Your task to perform on an android device: turn on sleep mode Image 0: 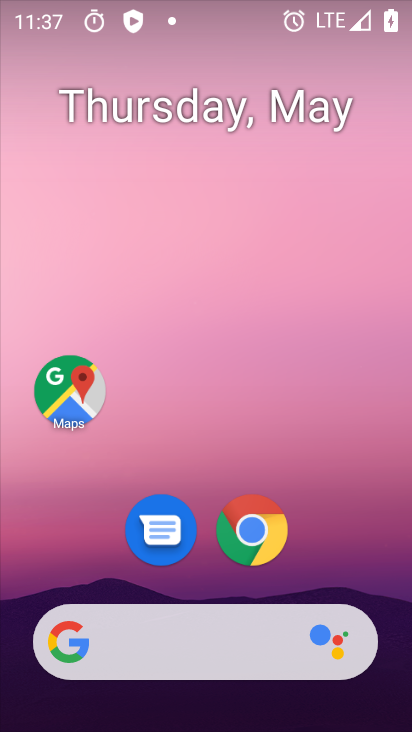
Step 0: drag from (355, 551) to (394, 97)
Your task to perform on an android device: turn on sleep mode Image 1: 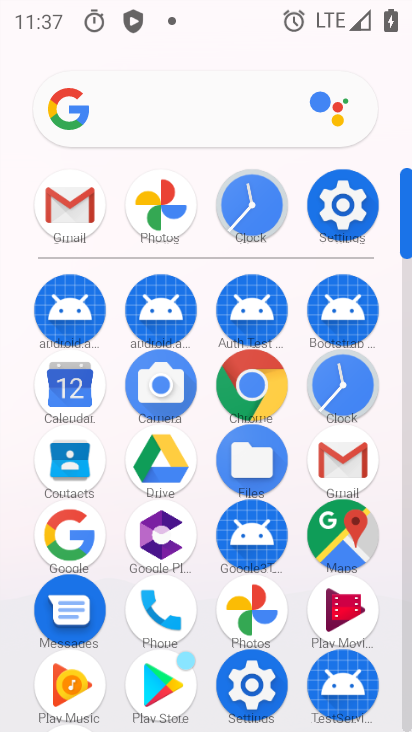
Step 1: click (330, 211)
Your task to perform on an android device: turn on sleep mode Image 2: 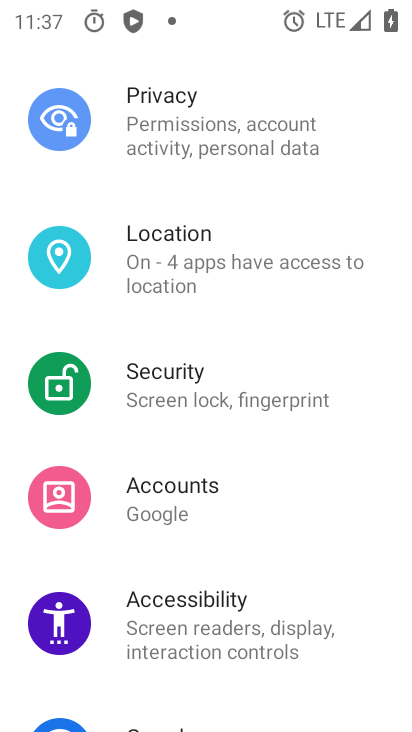
Step 2: drag from (326, 215) to (340, 326)
Your task to perform on an android device: turn on sleep mode Image 3: 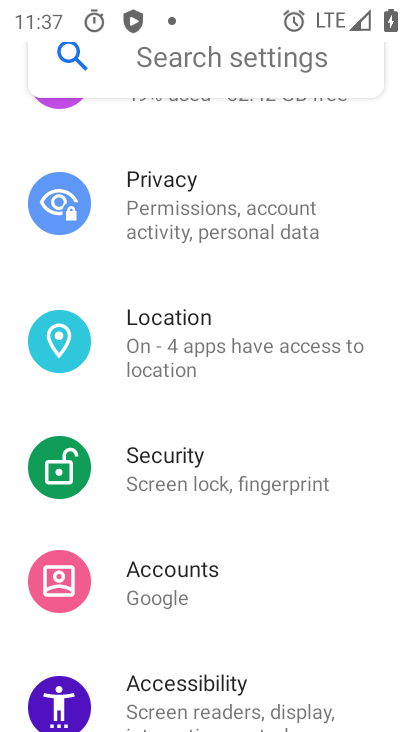
Step 3: drag from (330, 282) to (331, 347)
Your task to perform on an android device: turn on sleep mode Image 4: 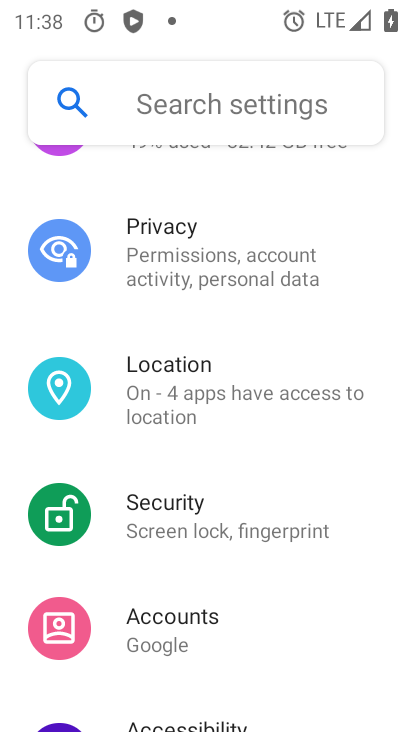
Step 4: drag from (307, 283) to (232, 468)
Your task to perform on an android device: turn on sleep mode Image 5: 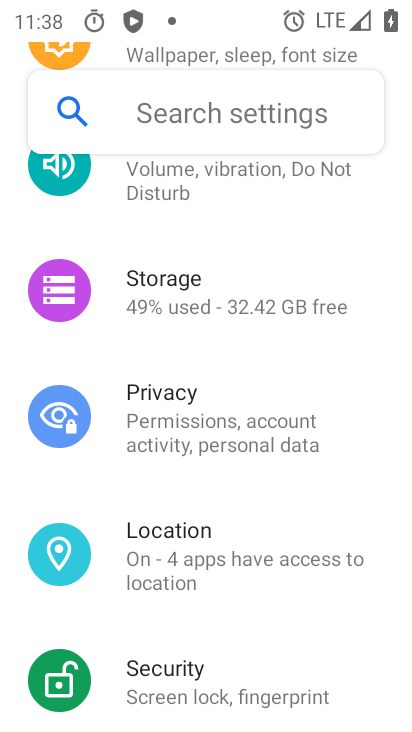
Step 5: drag from (220, 371) to (186, 486)
Your task to perform on an android device: turn on sleep mode Image 6: 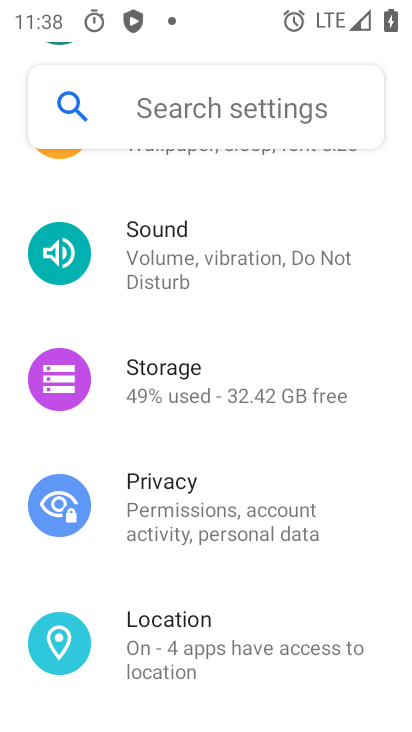
Step 6: drag from (196, 229) to (162, 545)
Your task to perform on an android device: turn on sleep mode Image 7: 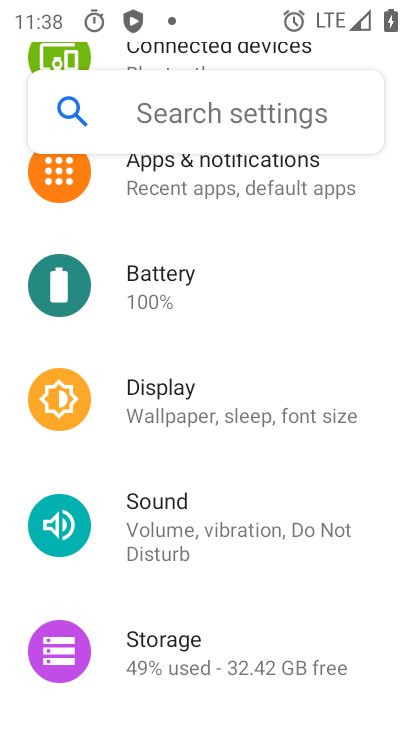
Step 7: drag from (177, 366) to (154, 457)
Your task to perform on an android device: turn on sleep mode Image 8: 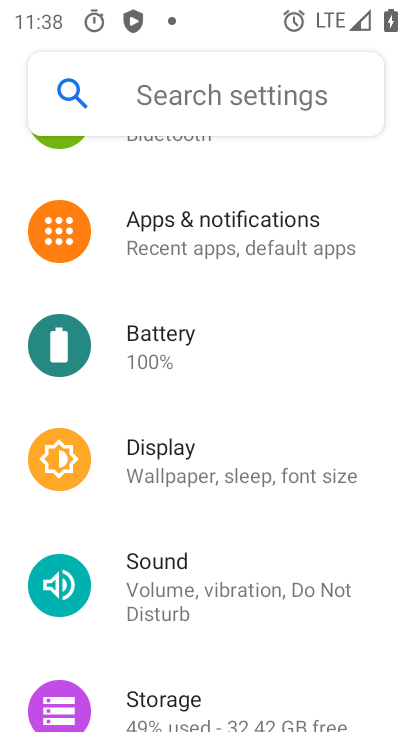
Step 8: drag from (163, 320) to (183, 584)
Your task to perform on an android device: turn on sleep mode Image 9: 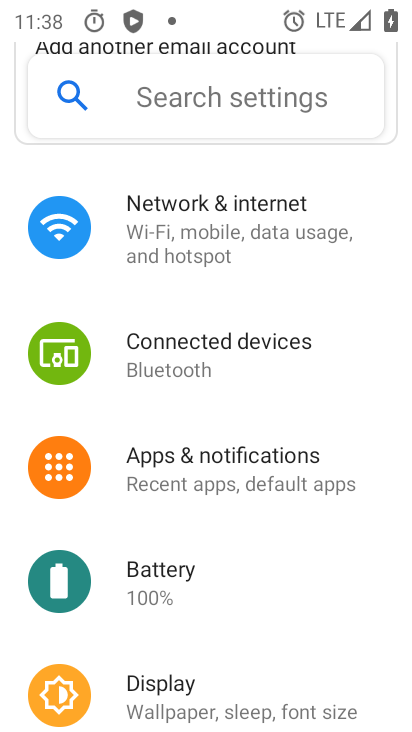
Step 9: click (160, 646)
Your task to perform on an android device: turn on sleep mode Image 10: 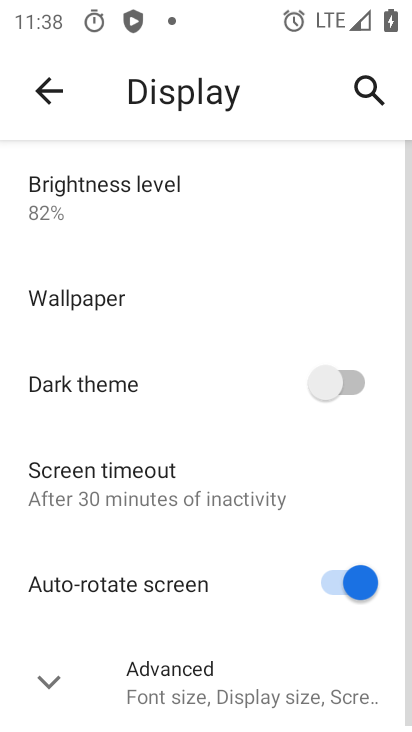
Step 10: click (135, 673)
Your task to perform on an android device: turn on sleep mode Image 11: 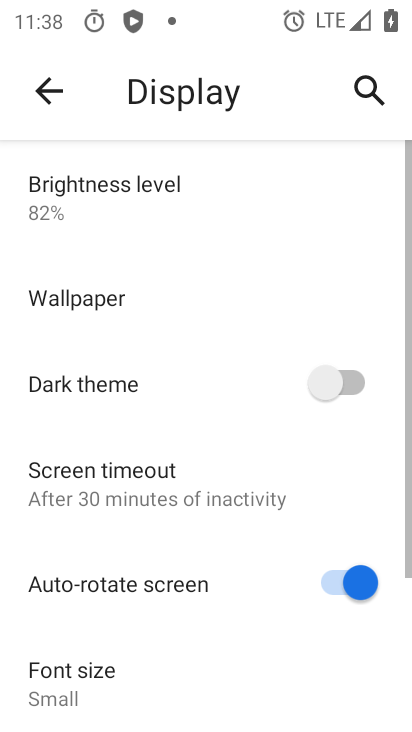
Step 11: task complete